Your task to perform on an android device: toggle priority inbox in the gmail app Image 0: 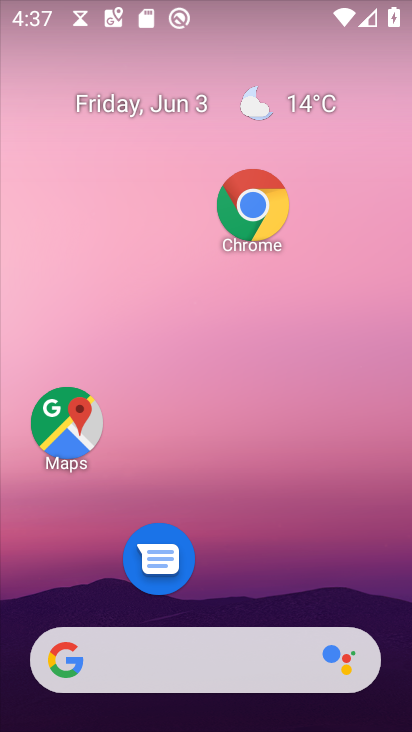
Step 0: drag from (267, 622) to (207, 365)
Your task to perform on an android device: toggle priority inbox in the gmail app Image 1: 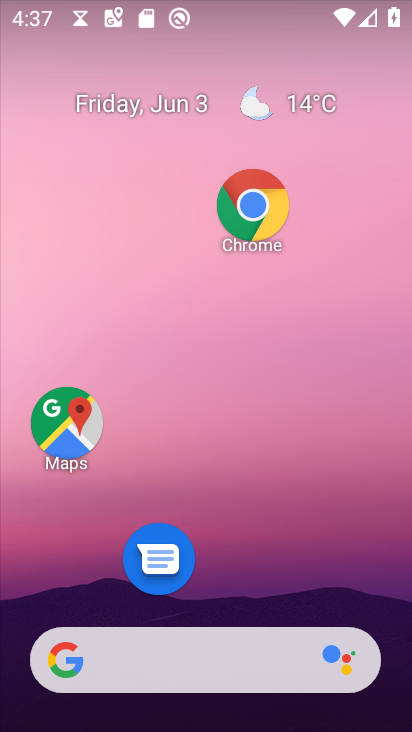
Step 1: drag from (312, 691) to (173, 316)
Your task to perform on an android device: toggle priority inbox in the gmail app Image 2: 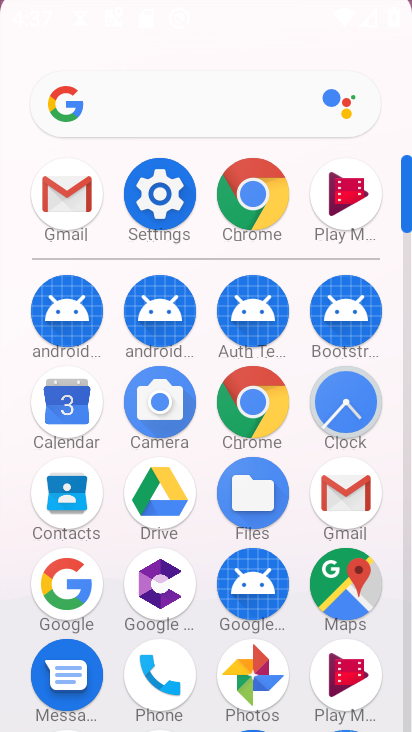
Step 2: drag from (301, 705) to (245, 245)
Your task to perform on an android device: toggle priority inbox in the gmail app Image 3: 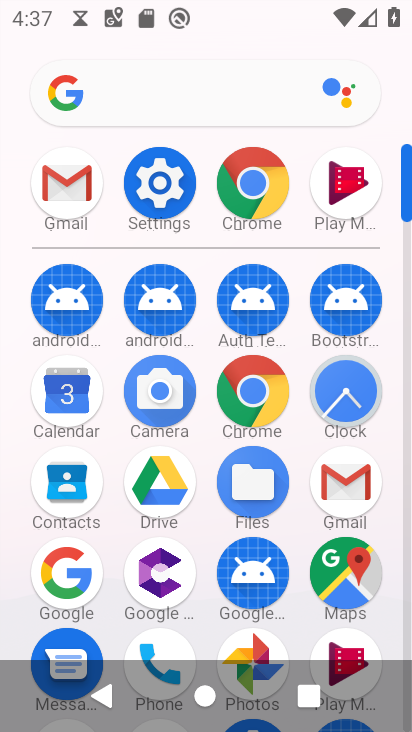
Step 3: click (336, 481)
Your task to perform on an android device: toggle priority inbox in the gmail app Image 4: 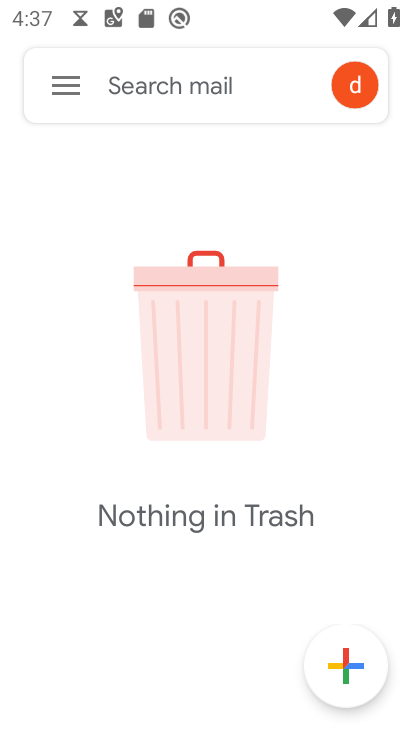
Step 4: click (47, 82)
Your task to perform on an android device: toggle priority inbox in the gmail app Image 5: 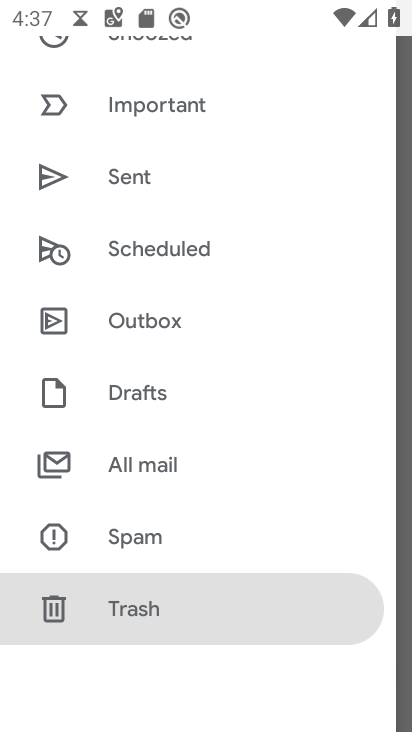
Step 5: drag from (143, 216) to (188, 518)
Your task to perform on an android device: toggle priority inbox in the gmail app Image 6: 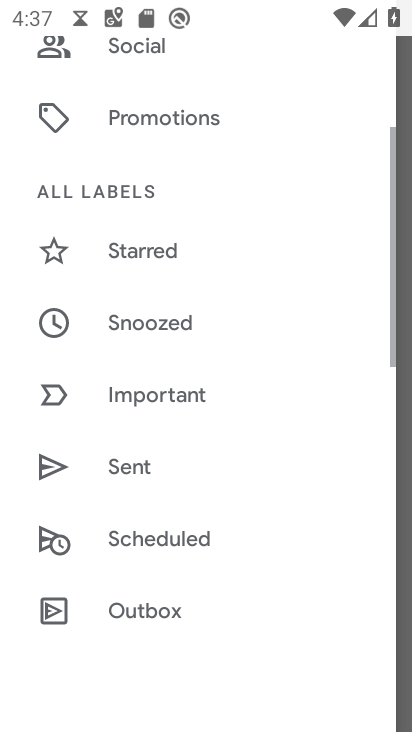
Step 6: drag from (152, 249) to (220, 530)
Your task to perform on an android device: toggle priority inbox in the gmail app Image 7: 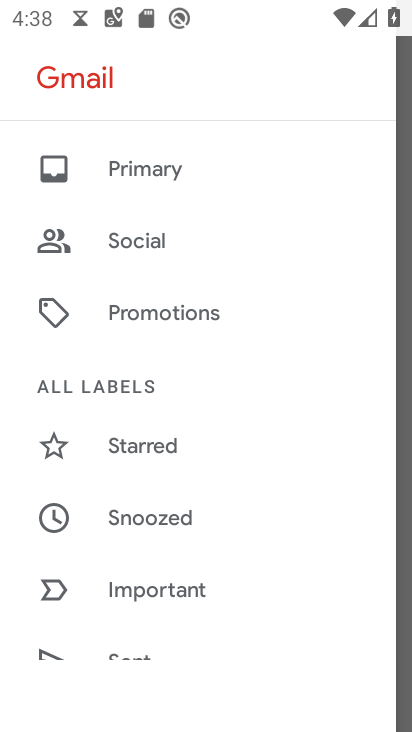
Step 7: drag from (162, 444) to (159, 253)
Your task to perform on an android device: toggle priority inbox in the gmail app Image 8: 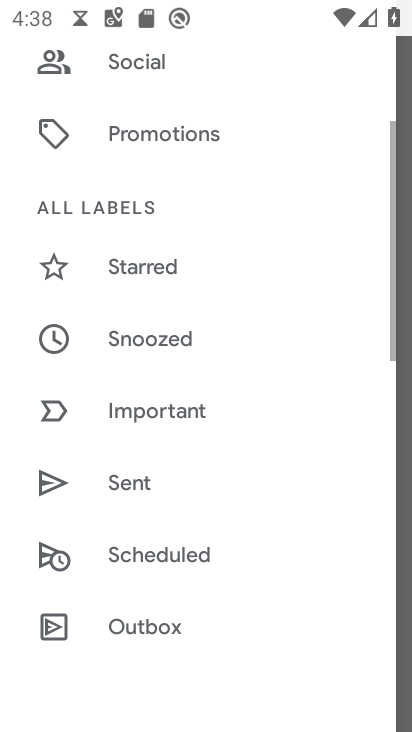
Step 8: drag from (201, 517) to (190, 179)
Your task to perform on an android device: toggle priority inbox in the gmail app Image 9: 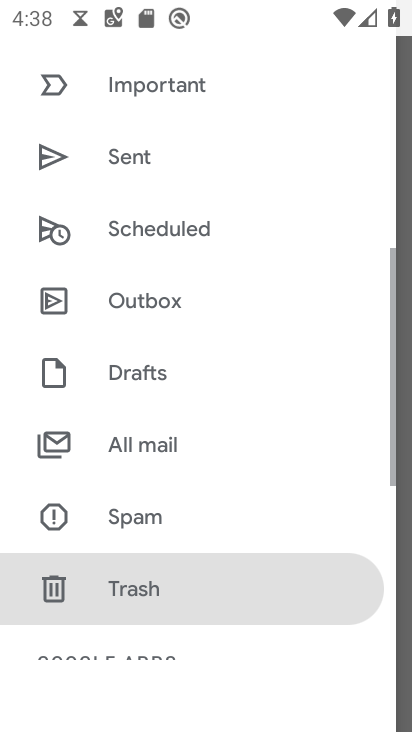
Step 9: drag from (184, 431) to (221, 273)
Your task to perform on an android device: toggle priority inbox in the gmail app Image 10: 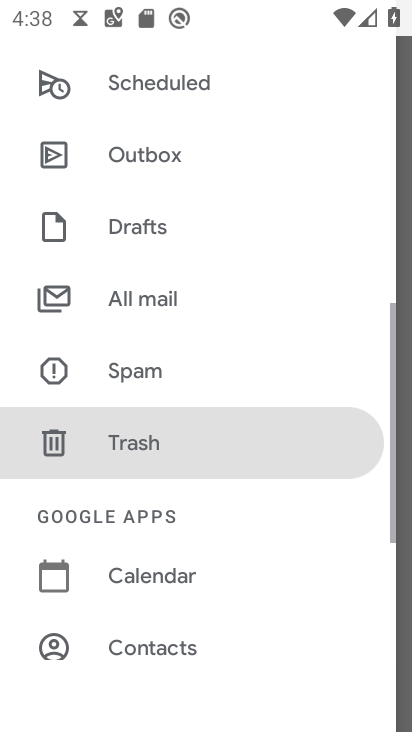
Step 10: drag from (173, 546) to (172, 219)
Your task to perform on an android device: toggle priority inbox in the gmail app Image 11: 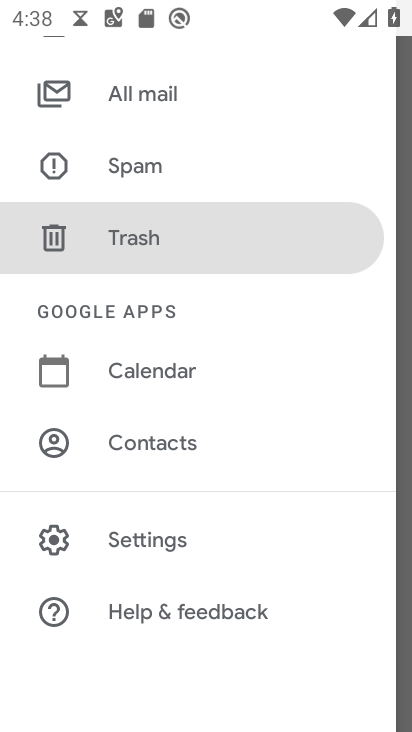
Step 11: click (142, 535)
Your task to perform on an android device: toggle priority inbox in the gmail app Image 12: 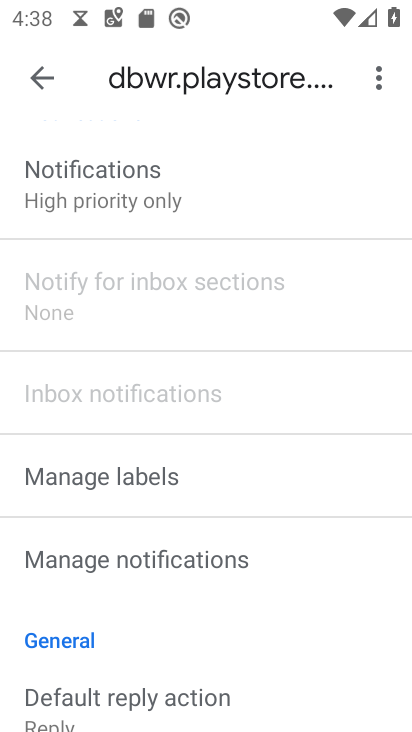
Step 12: drag from (108, 199) to (147, 426)
Your task to perform on an android device: toggle priority inbox in the gmail app Image 13: 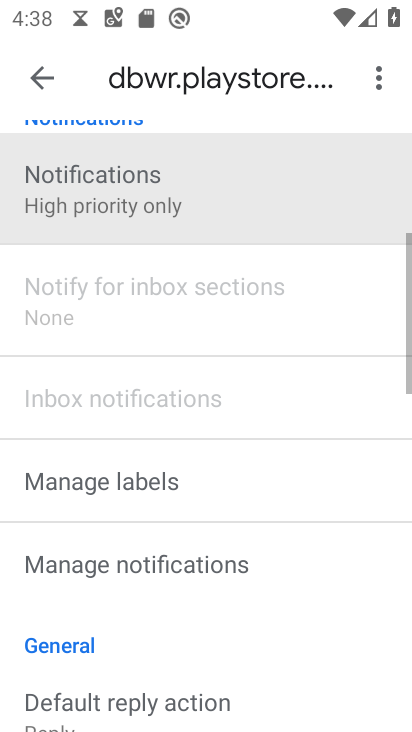
Step 13: drag from (118, 167) to (176, 516)
Your task to perform on an android device: toggle priority inbox in the gmail app Image 14: 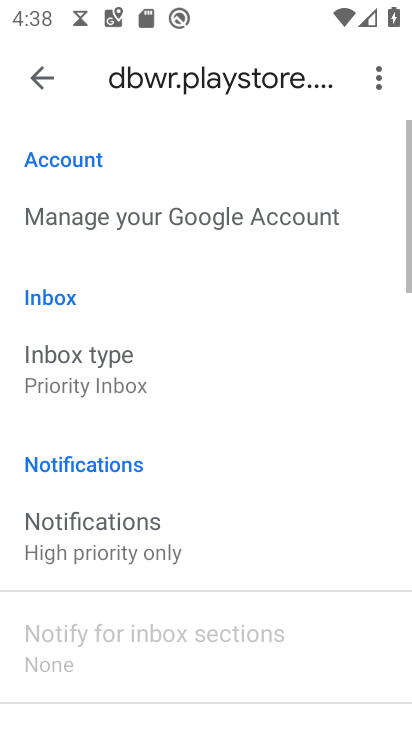
Step 14: drag from (166, 259) to (165, 610)
Your task to perform on an android device: toggle priority inbox in the gmail app Image 15: 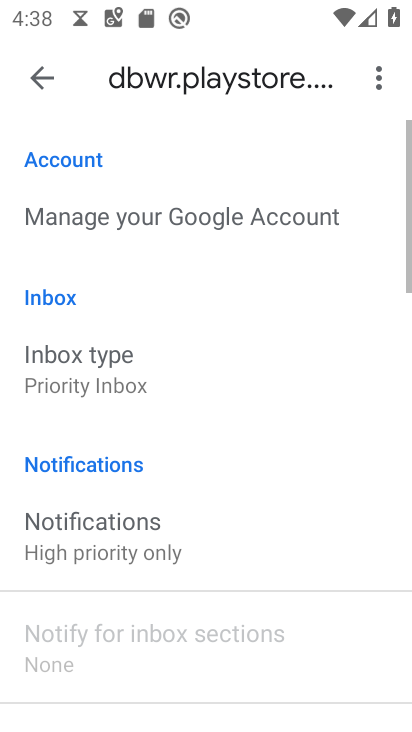
Step 15: click (79, 368)
Your task to perform on an android device: toggle priority inbox in the gmail app Image 16: 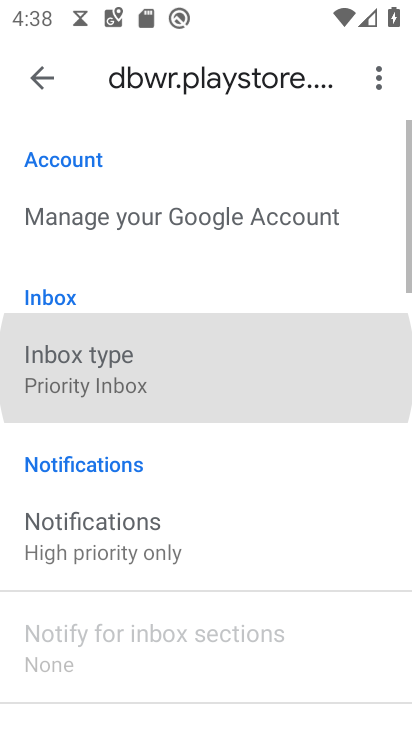
Step 16: click (80, 375)
Your task to perform on an android device: toggle priority inbox in the gmail app Image 17: 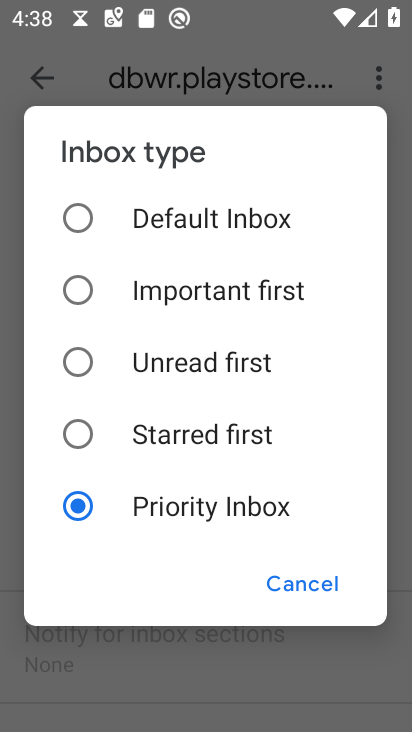
Step 17: click (82, 438)
Your task to perform on an android device: toggle priority inbox in the gmail app Image 18: 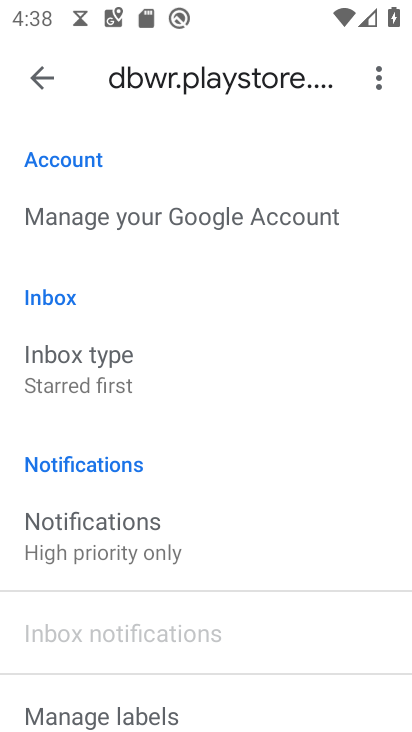
Step 18: click (56, 381)
Your task to perform on an android device: toggle priority inbox in the gmail app Image 19: 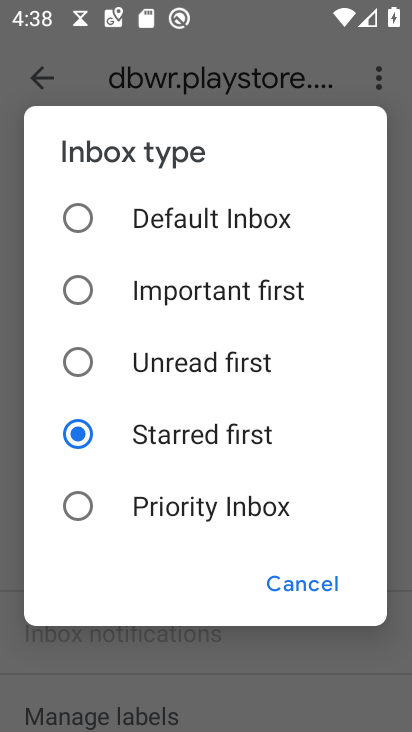
Step 19: click (315, 575)
Your task to perform on an android device: toggle priority inbox in the gmail app Image 20: 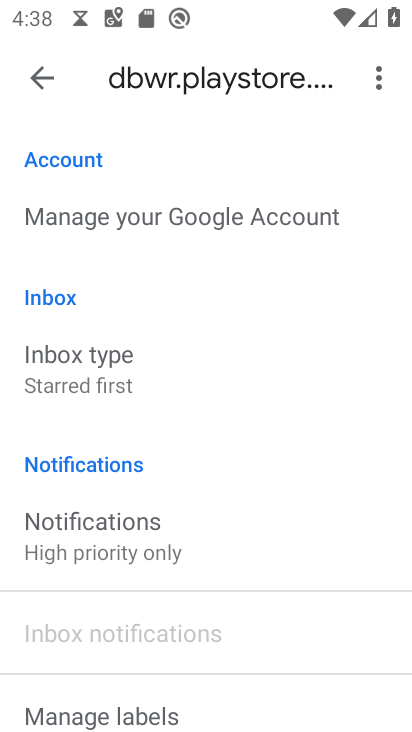
Step 20: task complete